Your task to perform on an android device: set the stopwatch Image 0: 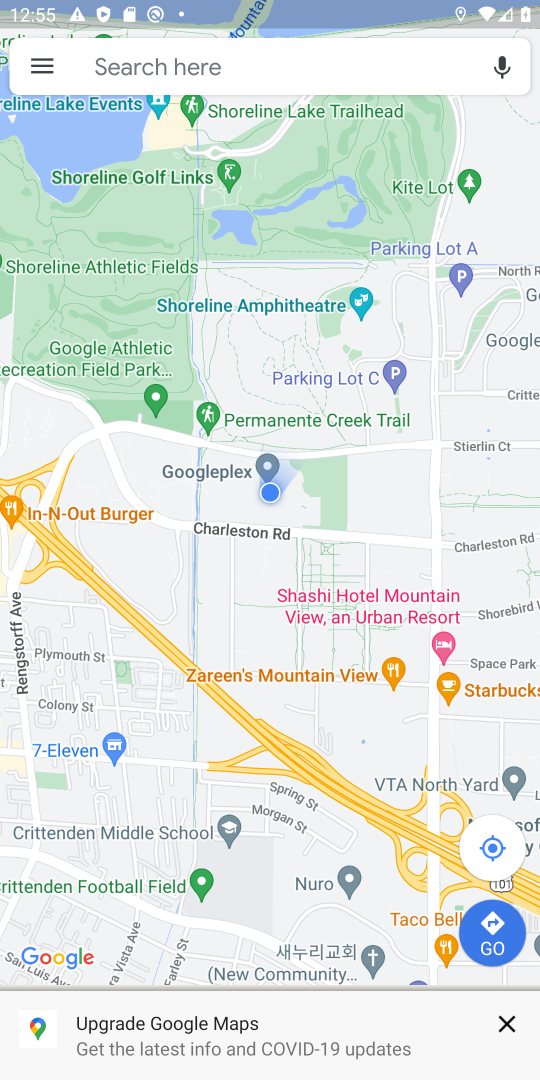
Step 0: press home button
Your task to perform on an android device: set the stopwatch Image 1: 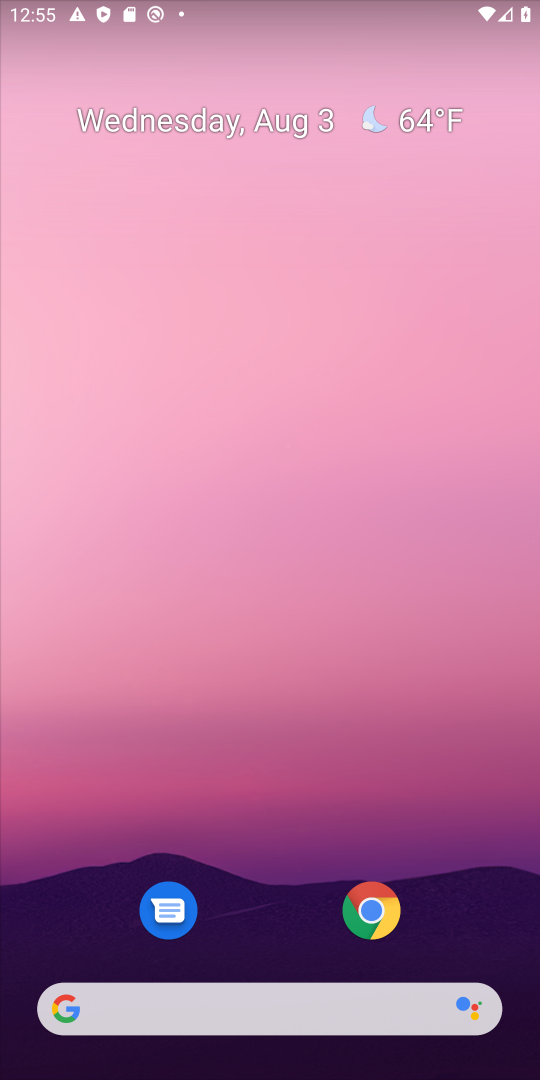
Step 1: drag from (400, 554) to (404, 51)
Your task to perform on an android device: set the stopwatch Image 2: 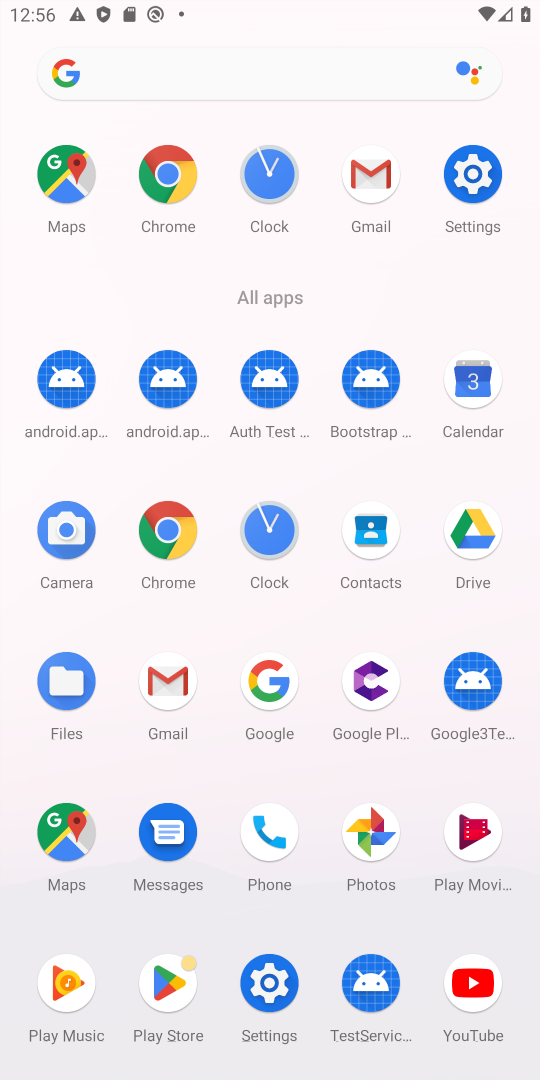
Step 2: click (264, 175)
Your task to perform on an android device: set the stopwatch Image 3: 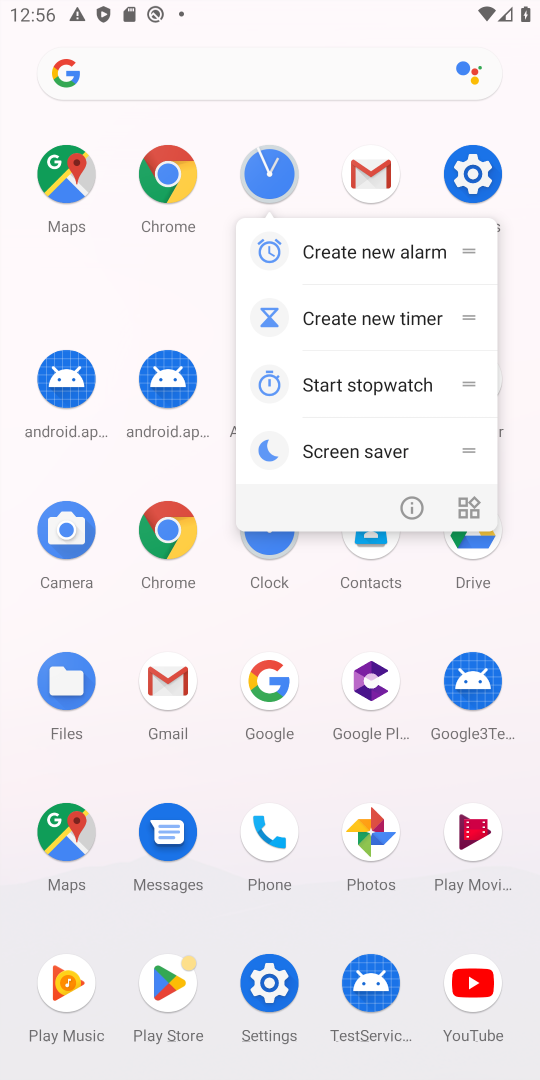
Step 3: click (264, 175)
Your task to perform on an android device: set the stopwatch Image 4: 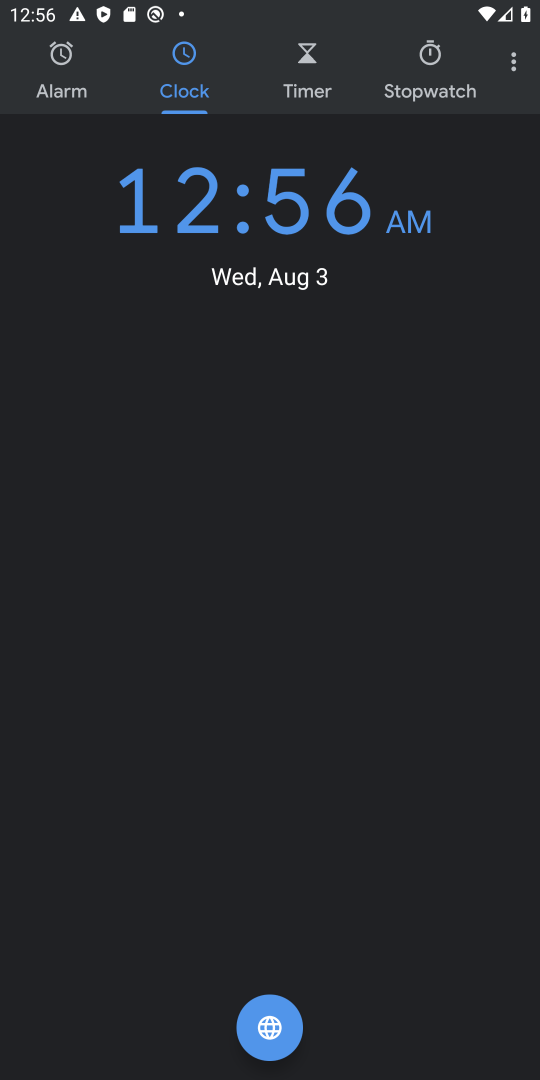
Step 4: click (443, 51)
Your task to perform on an android device: set the stopwatch Image 5: 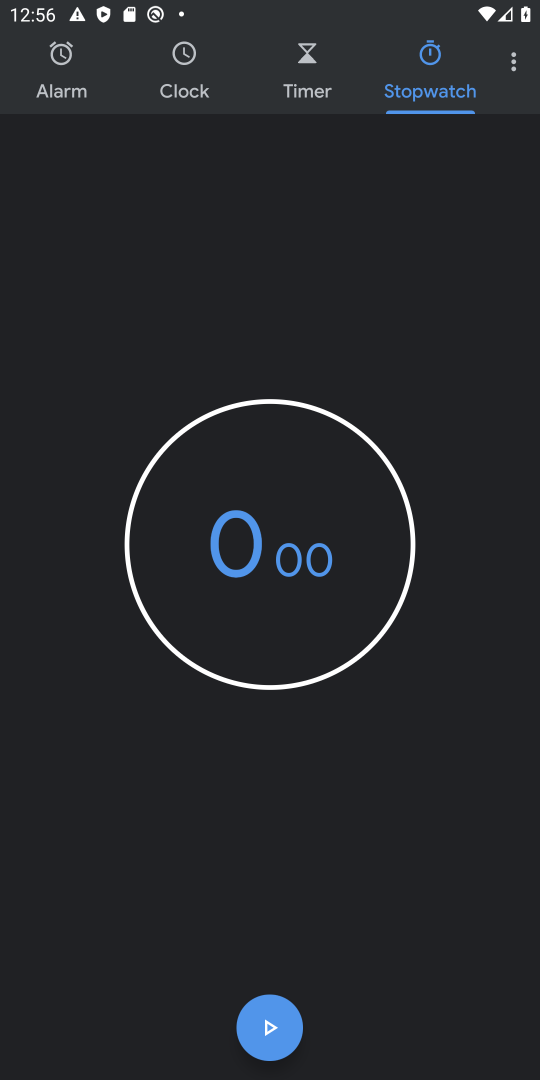
Step 5: click (280, 1026)
Your task to perform on an android device: set the stopwatch Image 6: 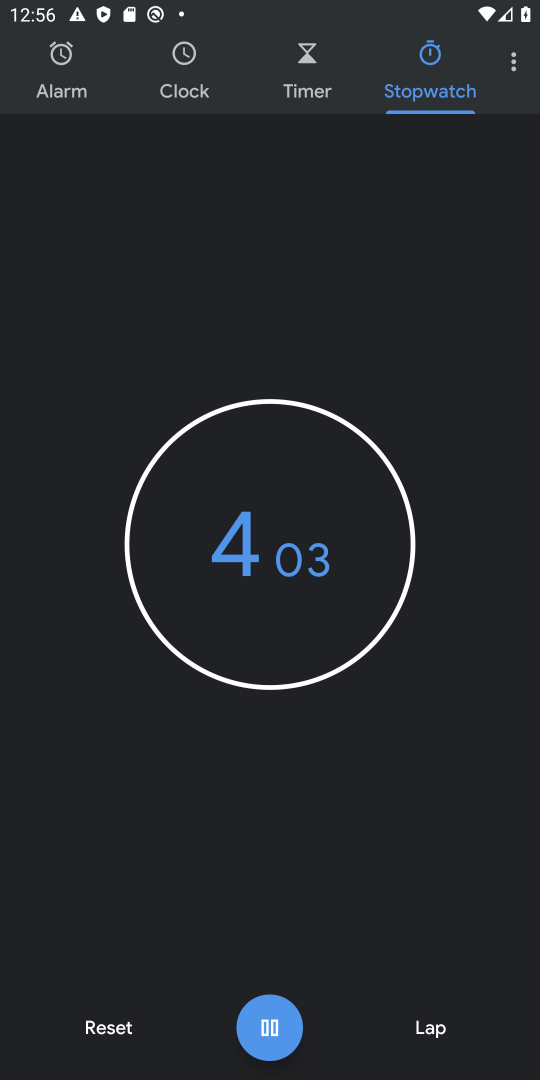
Step 6: task complete